Your task to perform on an android device: Open wifi settings Image 0: 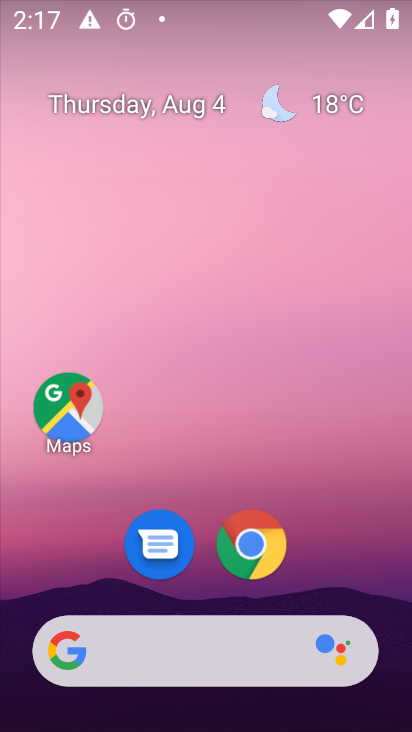
Step 0: drag from (377, 683) to (268, 61)
Your task to perform on an android device: Open wifi settings Image 1: 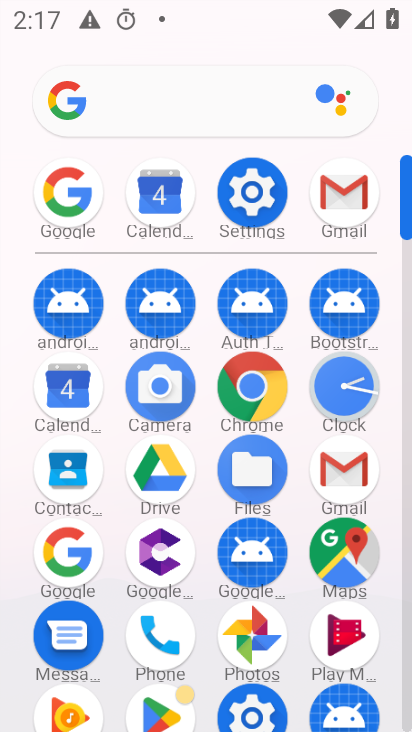
Step 1: click (241, 205)
Your task to perform on an android device: Open wifi settings Image 2: 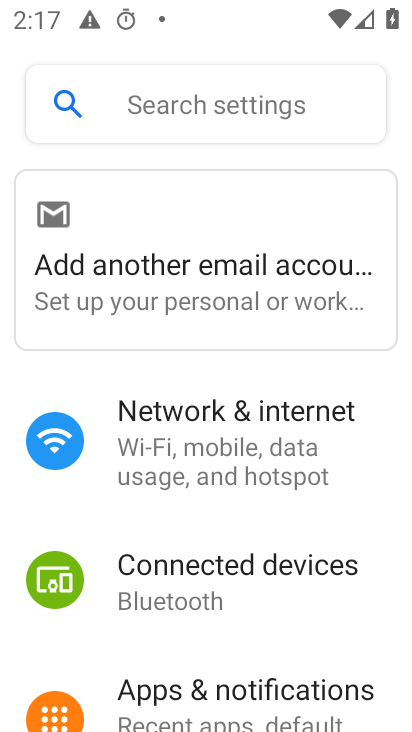
Step 2: click (176, 420)
Your task to perform on an android device: Open wifi settings Image 3: 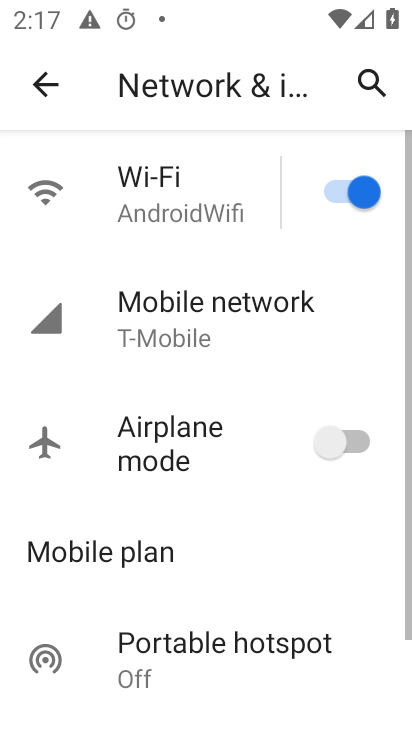
Step 3: click (200, 203)
Your task to perform on an android device: Open wifi settings Image 4: 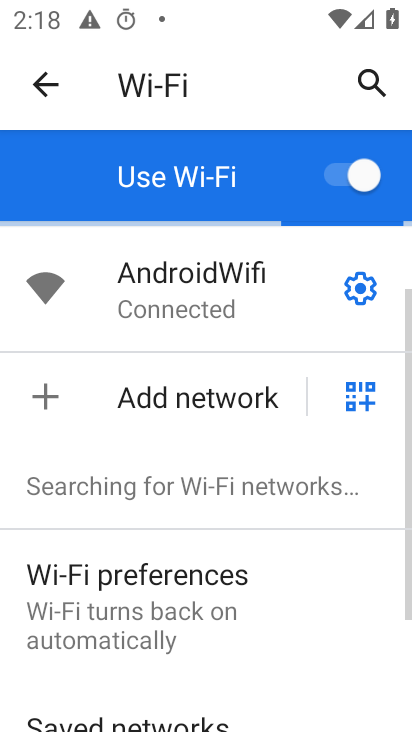
Step 4: click (347, 287)
Your task to perform on an android device: Open wifi settings Image 5: 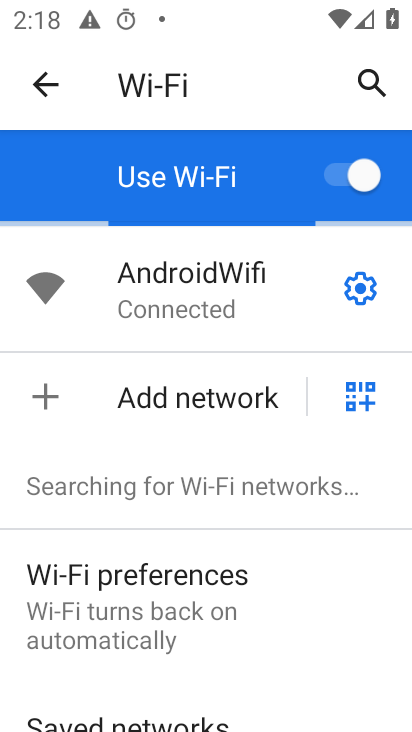
Step 5: click (346, 285)
Your task to perform on an android device: Open wifi settings Image 6: 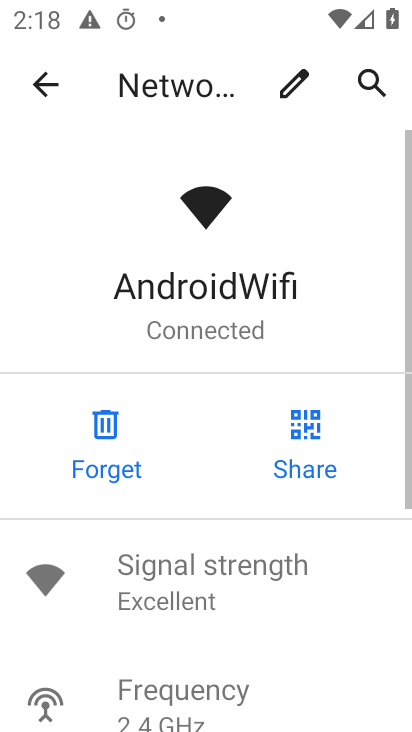
Step 6: task complete